Your task to perform on an android device: Open the phone app and click the voicemail tab. Image 0: 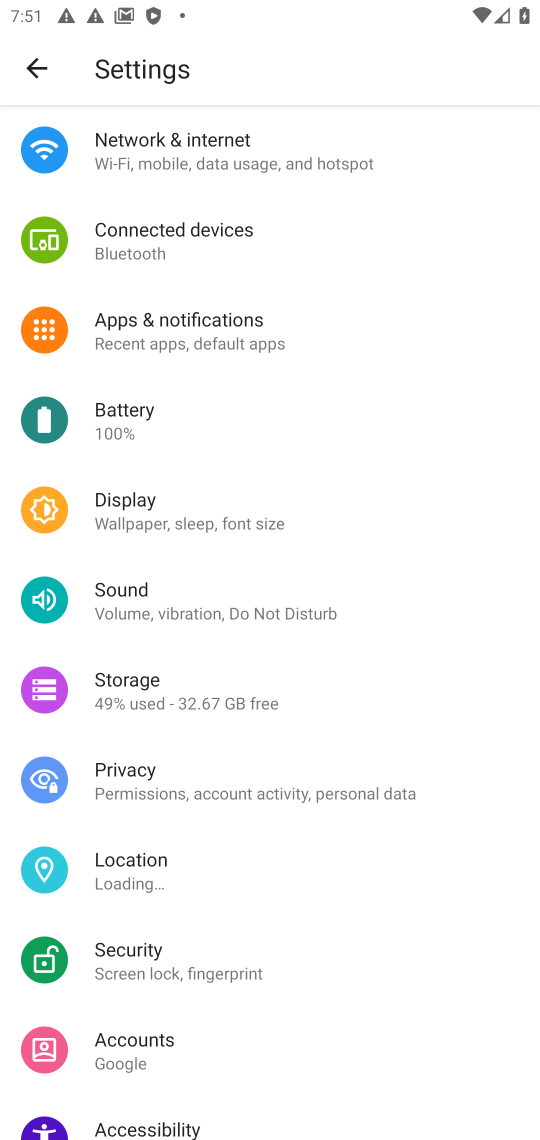
Step 0: press home button
Your task to perform on an android device: Open the phone app and click the voicemail tab. Image 1: 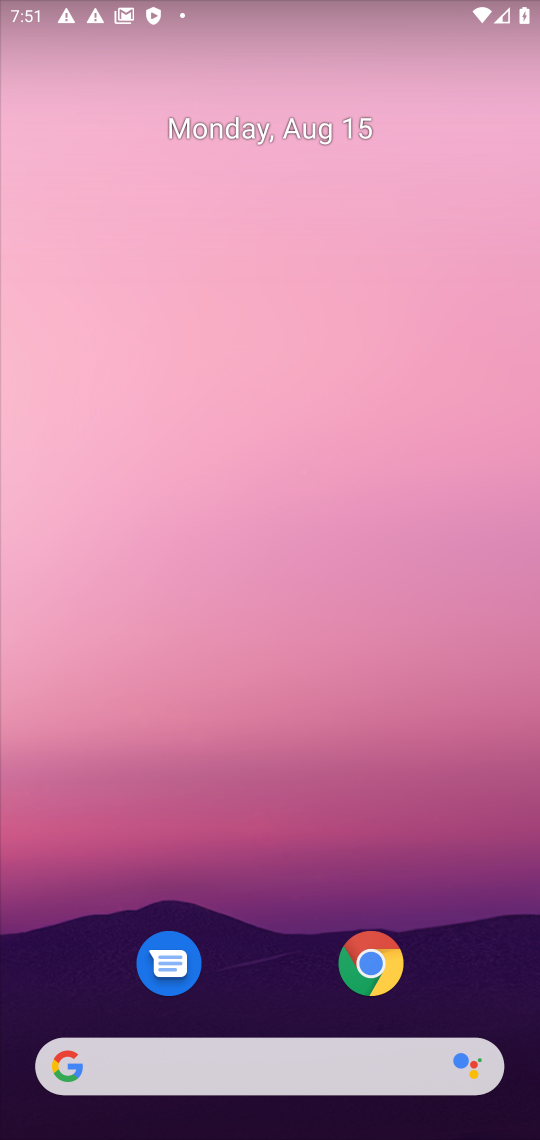
Step 1: drag from (277, 993) to (253, 386)
Your task to perform on an android device: Open the phone app and click the voicemail tab. Image 2: 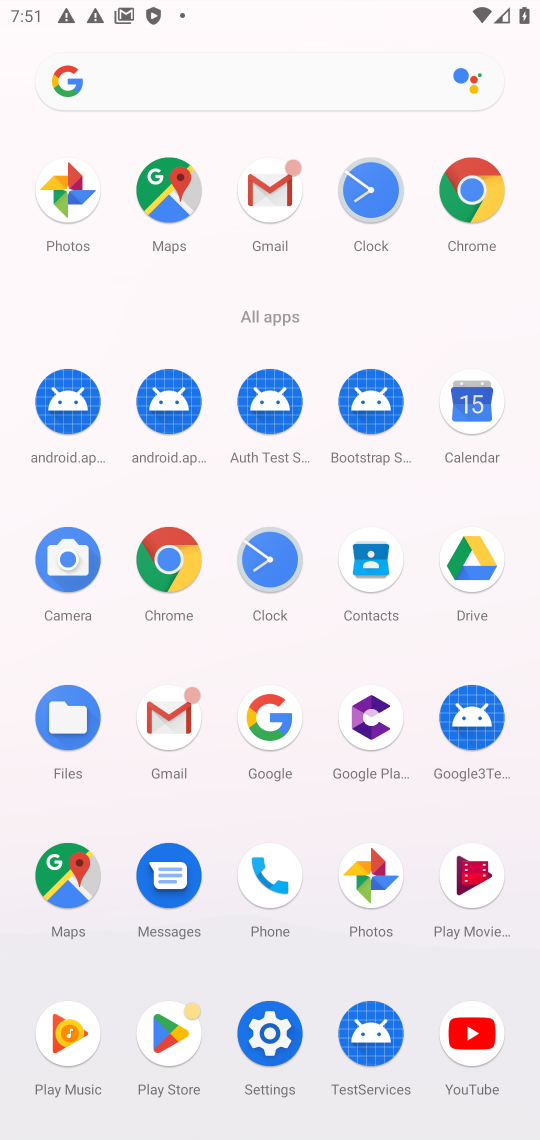
Step 2: click (278, 882)
Your task to perform on an android device: Open the phone app and click the voicemail tab. Image 3: 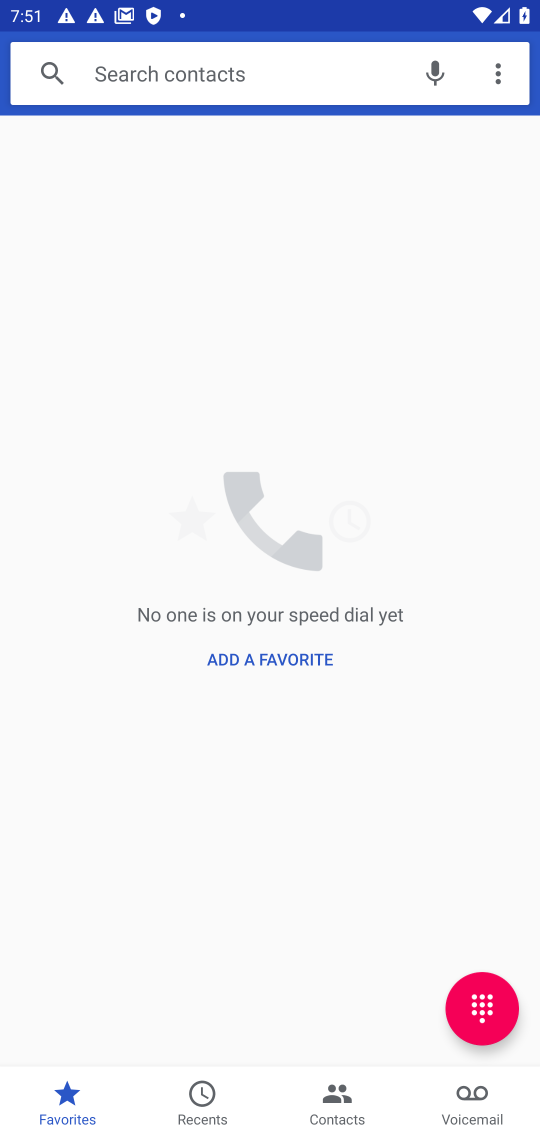
Step 3: click (488, 1100)
Your task to perform on an android device: Open the phone app and click the voicemail tab. Image 4: 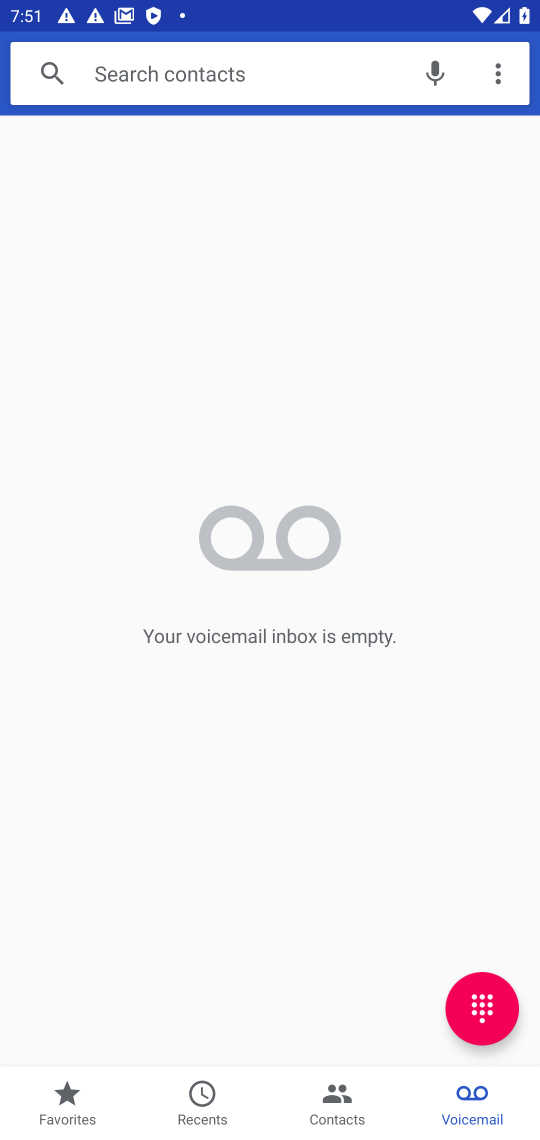
Step 4: task complete